Your task to perform on an android device: uninstall "Spotify" Image 0: 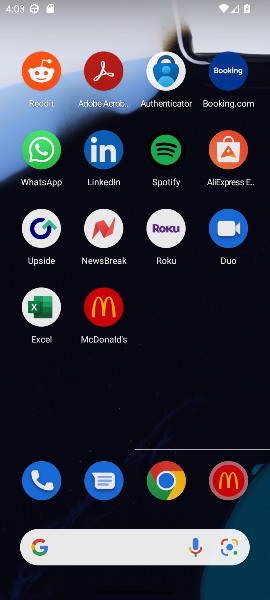
Step 0: press home button
Your task to perform on an android device: uninstall "Spotify" Image 1: 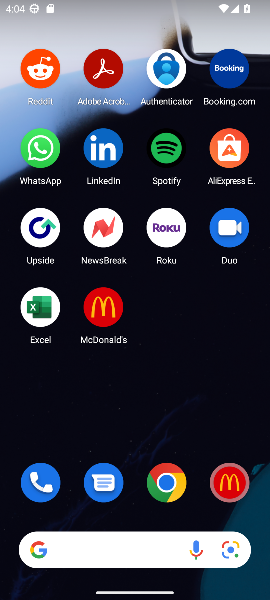
Step 1: press home button
Your task to perform on an android device: uninstall "Spotify" Image 2: 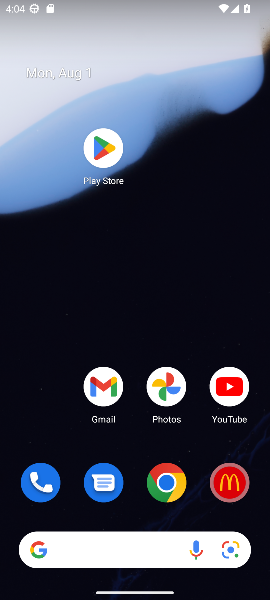
Step 2: click (103, 153)
Your task to perform on an android device: uninstall "Spotify" Image 3: 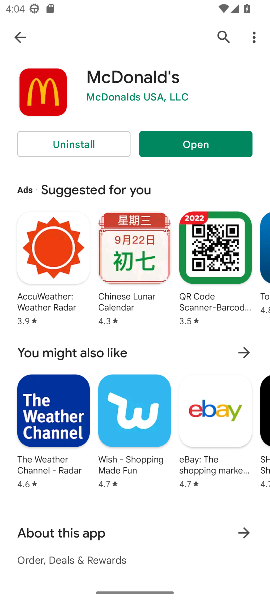
Step 3: click (220, 33)
Your task to perform on an android device: uninstall "Spotify" Image 4: 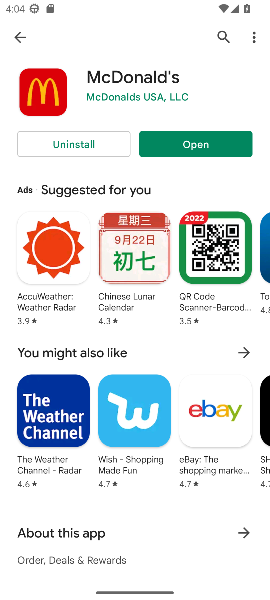
Step 4: click (220, 34)
Your task to perform on an android device: uninstall "Spotify" Image 5: 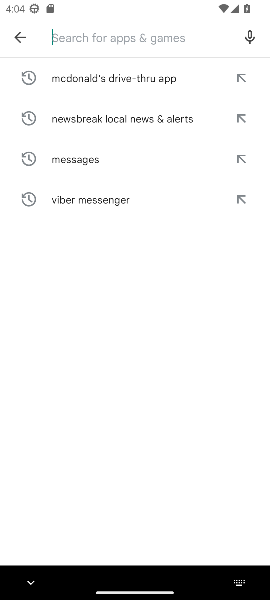
Step 5: type "Spotify"
Your task to perform on an android device: uninstall "Spotify" Image 6: 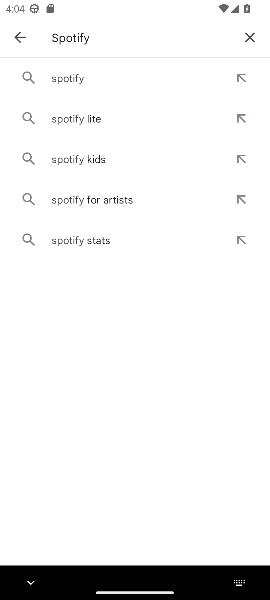
Step 6: click (76, 78)
Your task to perform on an android device: uninstall "Spotify" Image 7: 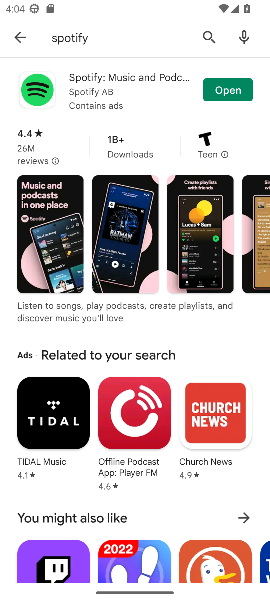
Step 7: click (42, 97)
Your task to perform on an android device: uninstall "Spotify" Image 8: 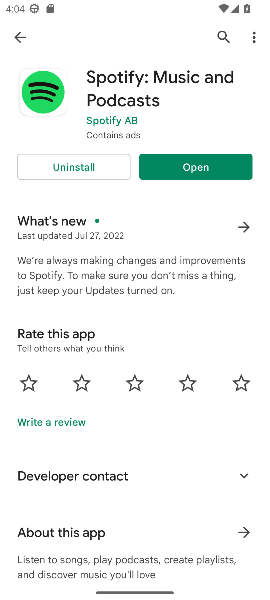
Step 8: click (83, 163)
Your task to perform on an android device: uninstall "Spotify" Image 9: 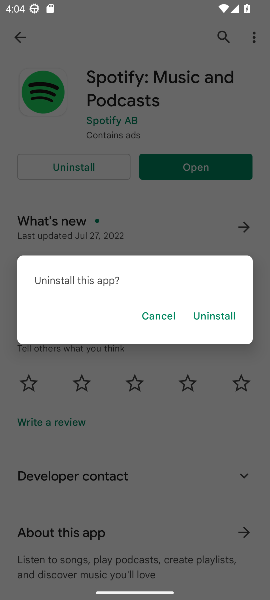
Step 9: click (208, 314)
Your task to perform on an android device: uninstall "Spotify" Image 10: 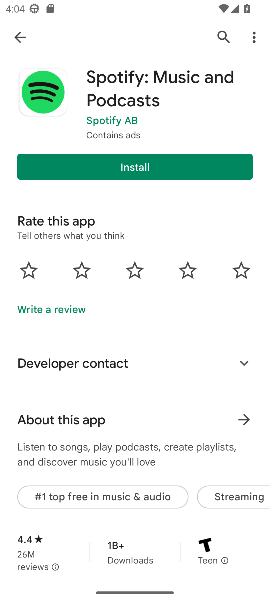
Step 10: task complete